Your task to perform on an android device: Open Yahoo.com Image 0: 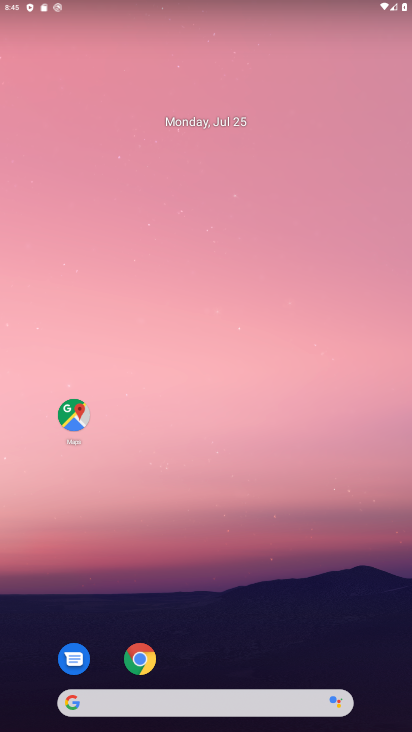
Step 0: click (139, 659)
Your task to perform on an android device: Open Yahoo.com Image 1: 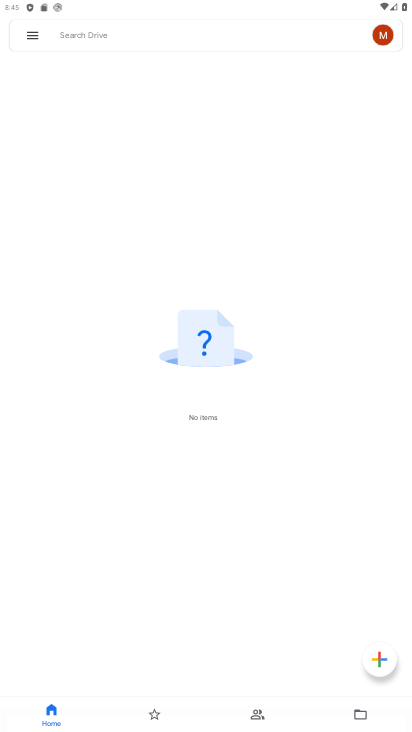
Step 1: press home button
Your task to perform on an android device: Open Yahoo.com Image 2: 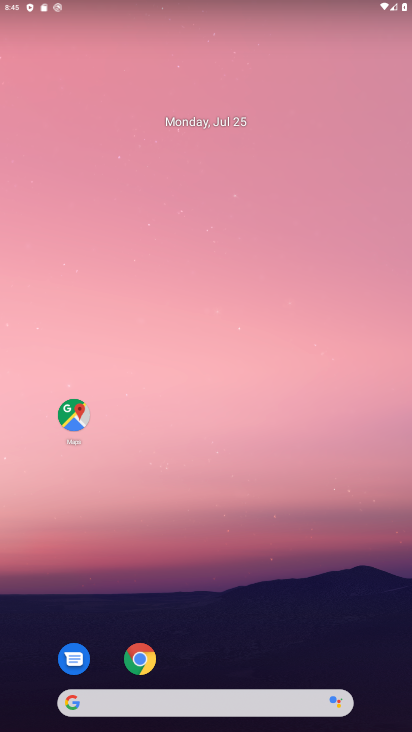
Step 2: click (146, 646)
Your task to perform on an android device: Open Yahoo.com Image 3: 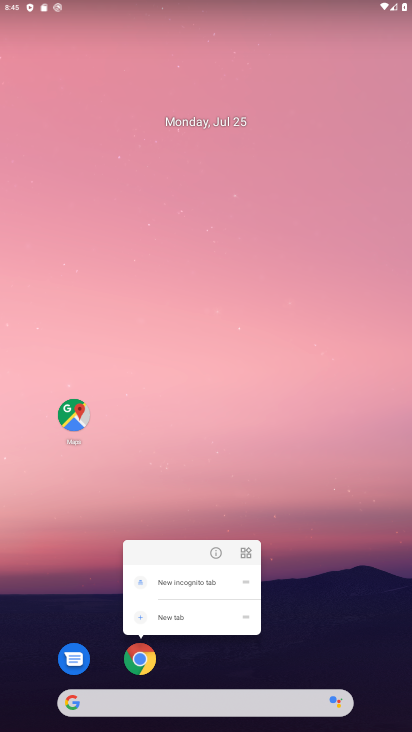
Step 3: click (140, 653)
Your task to perform on an android device: Open Yahoo.com Image 4: 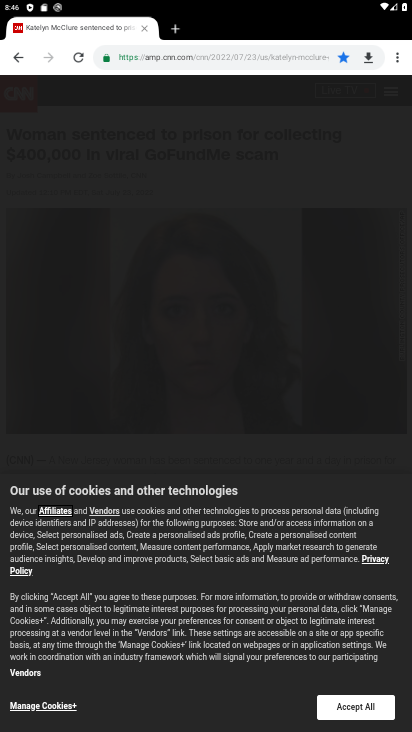
Step 4: click (174, 31)
Your task to perform on an android device: Open Yahoo.com Image 5: 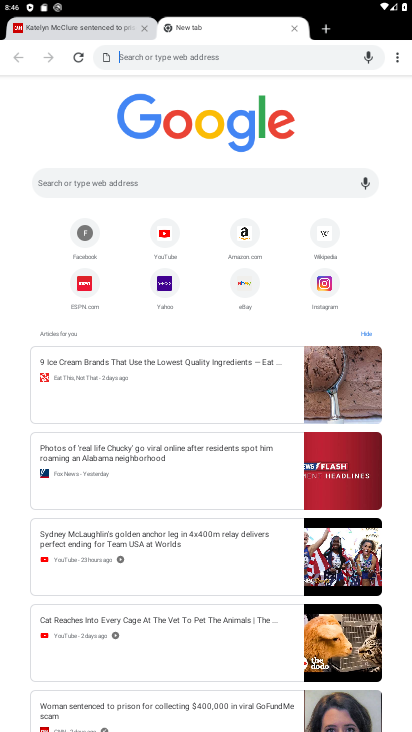
Step 5: click (169, 297)
Your task to perform on an android device: Open Yahoo.com Image 6: 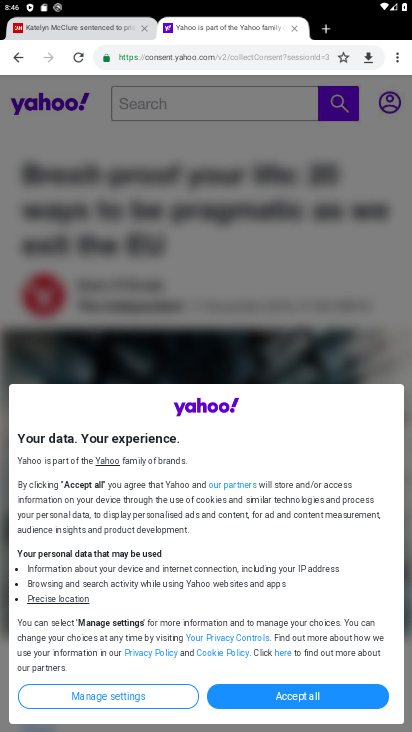
Step 6: task complete